Your task to perform on an android device: Show me recent news Image 0: 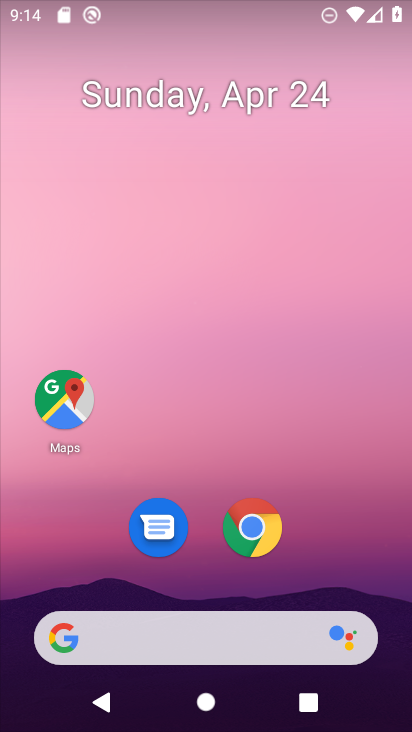
Step 0: drag from (371, 575) to (150, 57)
Your task to perform on an android device: Show me recent news Image 1: 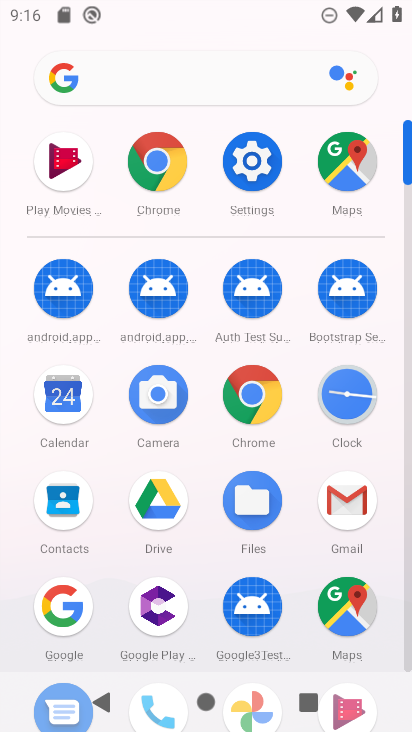
Step 1: click (263, 408)
Your task to perform on an android device: Show me recent news Image 2: 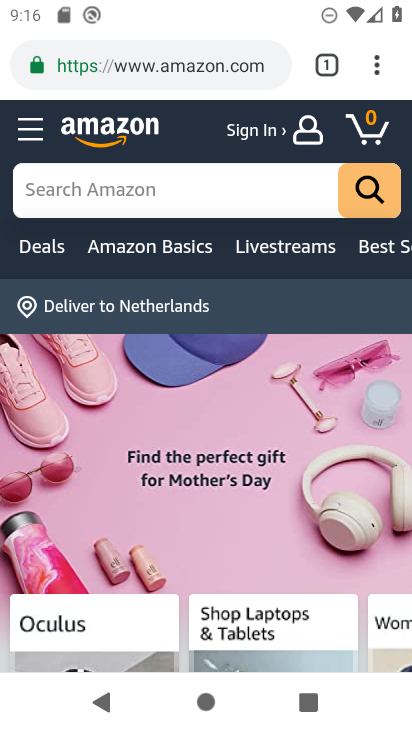
Step 2: press back button
Your task to perform on an android device: Show me recent news Image 3: 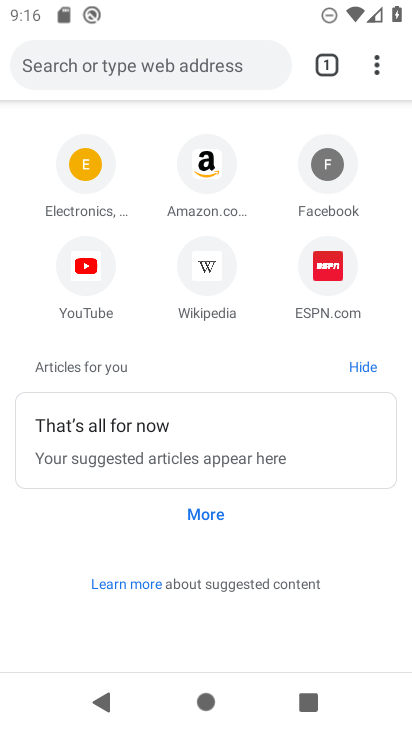
Step 3: click (195, 507)
Your task to perform on an android device: Show me recent news Image 4: 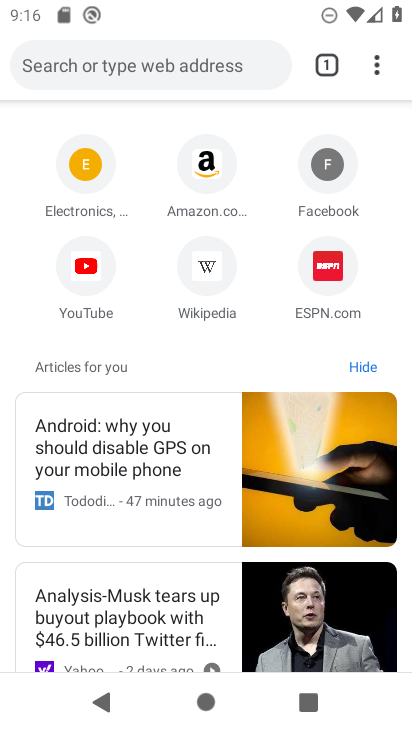
Step 4: click (187, 510)
Your task to perform on an android device: Show me recent news Image 5: 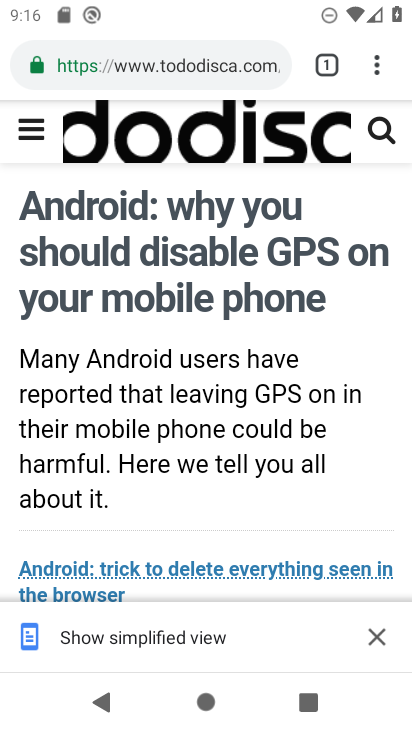
Step 5: task complete